Your task to perform on an android device: Check the weather Image 0: 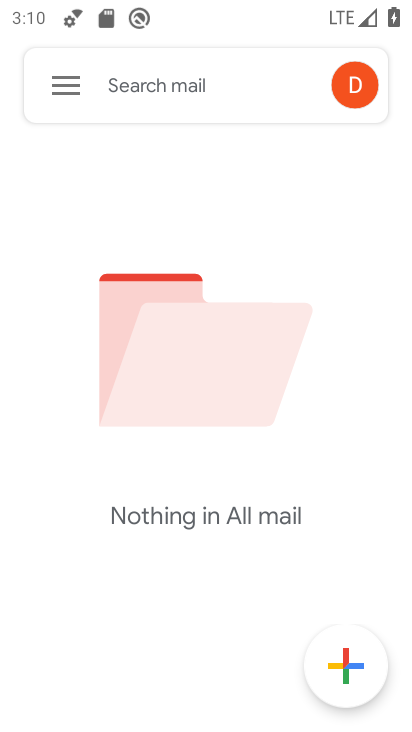
Step 0: press home button
Your task to perform on an android device: Check the weather Image 1: 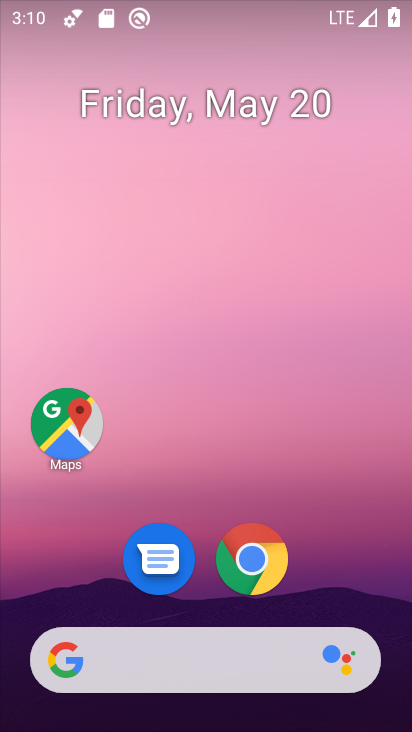
Step 1: click (187, 660)
Your task to perform on an android device: Check the weather Image 2: 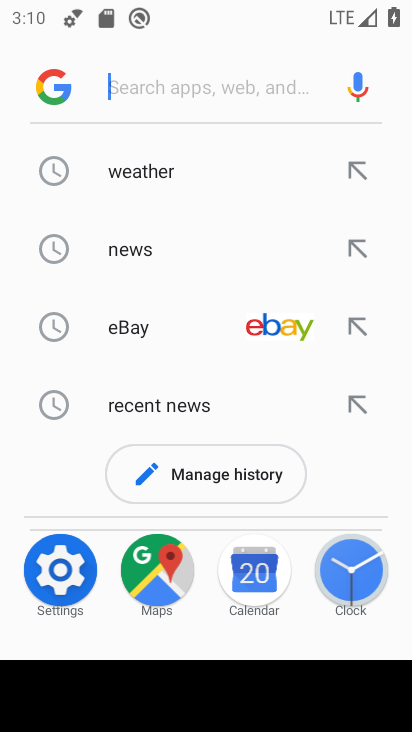
Step 2: click (121, 167)
Your task to perform on an android device: Check the weather Image 3: 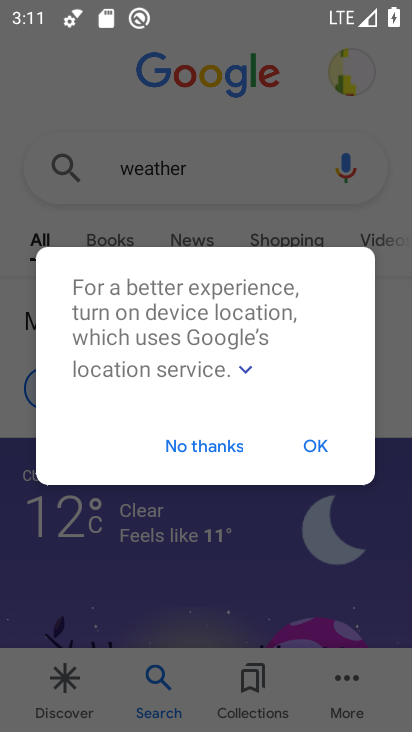
Step 3: click (315, 442)
Your task to perform on an android device: Check the weather Image 4: 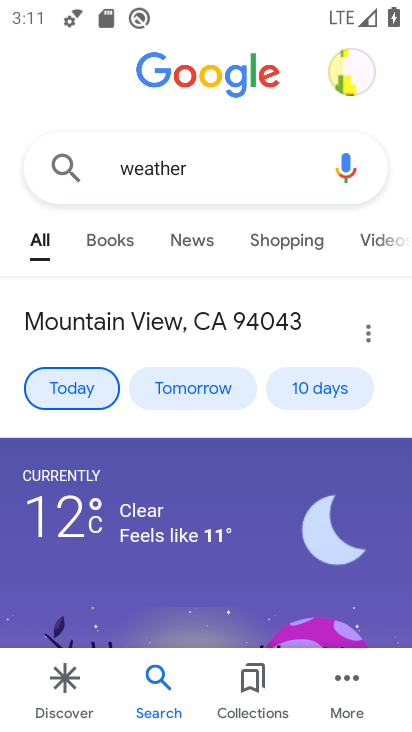
Step 4: click (89, 387)
Your task to perform on an android device: Check the weather Image 5: 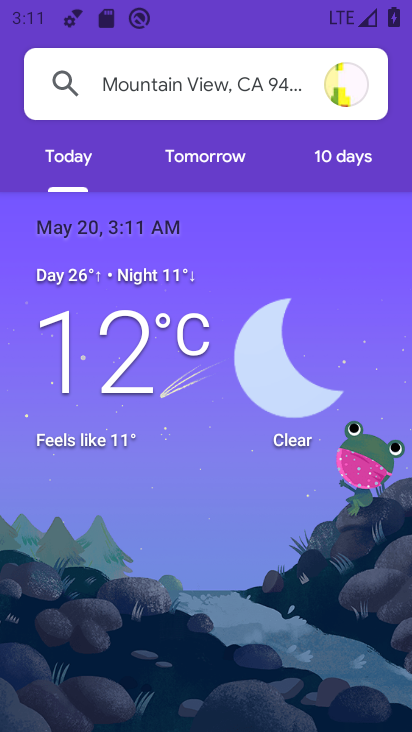
Step 5: task complete